Your task to perform on an android device: Open location settings Image 0: 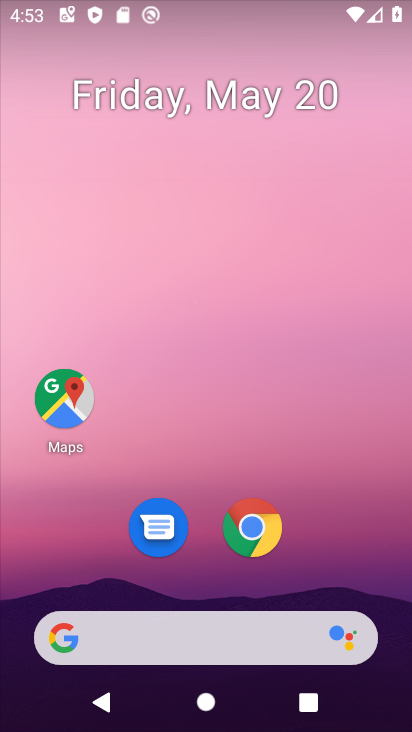
Step 0: drag from (170, 580) to (200, 165)
Your task to perform on an android device: Open location settings Image 1: 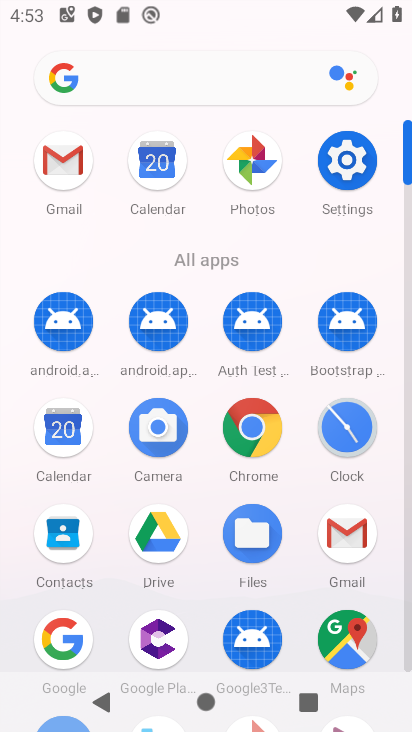
Step 1: click (342, 166)
Your task to perform on an android device: Open location settings Image 2: 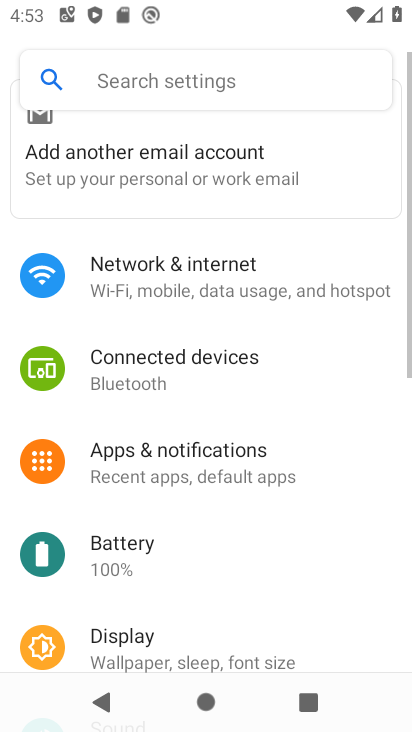
Step 2: drag from (159, 645) to (195, 266)
Your task to perform on an android device: Open location settings Image 3: 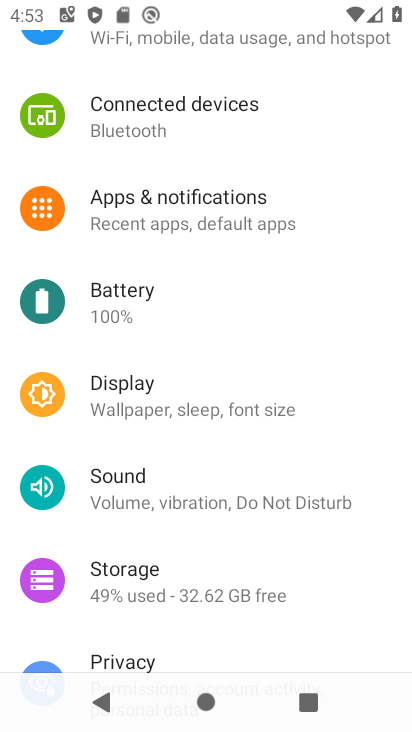
Step 3: drag from (169, 499) to (180, 248)
Your task to perform on an android device: Open location settings Image 4: 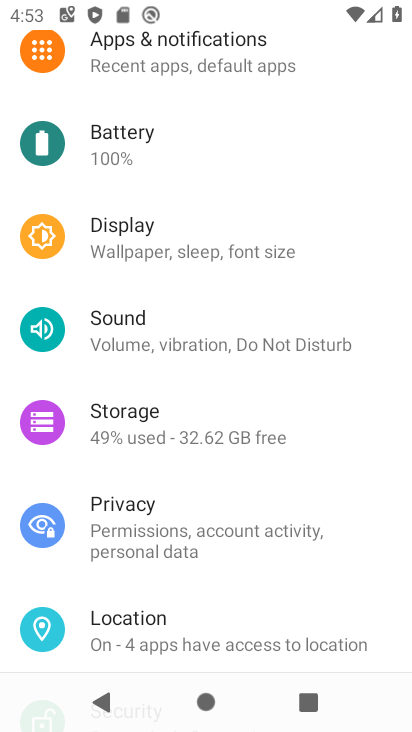
Step 4: click (167, 624)
Your task to perform on an android device: Open location settings Image 5: 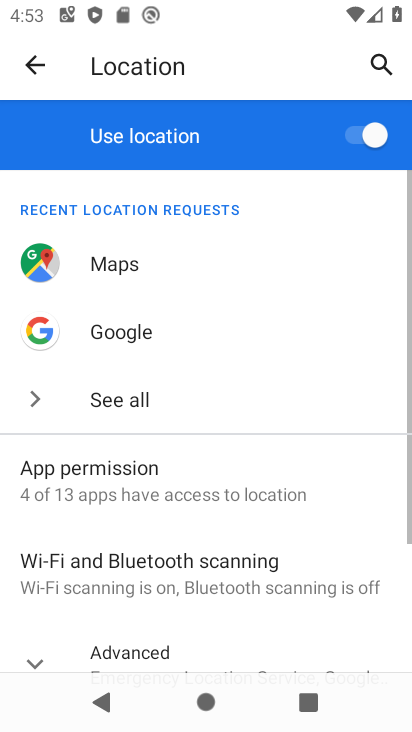
Step 5: click (134, 639)
Your task to perform on an android device: Open location settings Image 6: 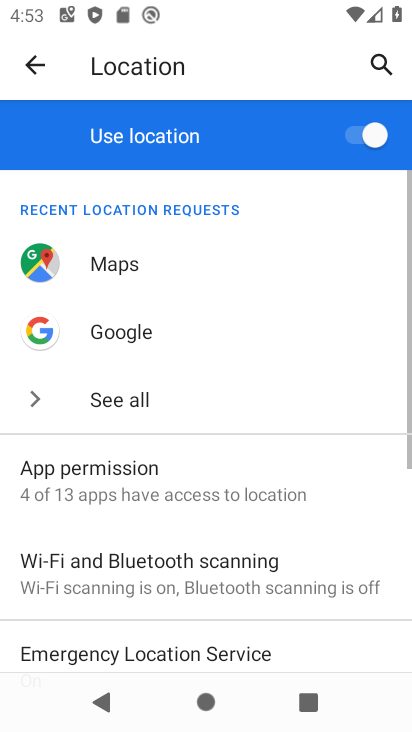
Step 6: task complete